Your task to perform on an android device: change notification settings in the gmail app Image 0: 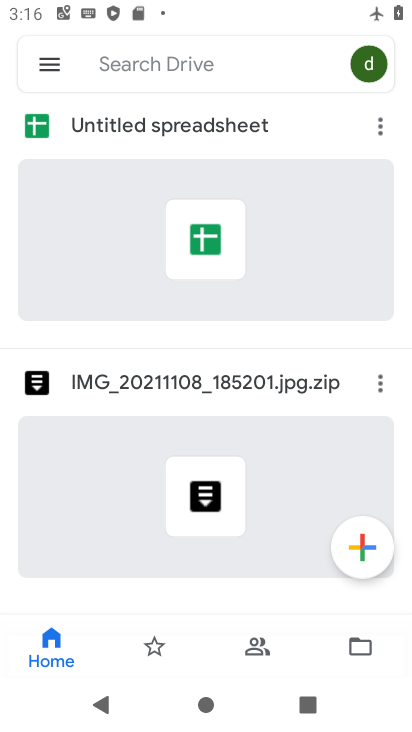
Step 0: press home button
Your task to perform on an android device: change notification settings in the gmail app Image 1: 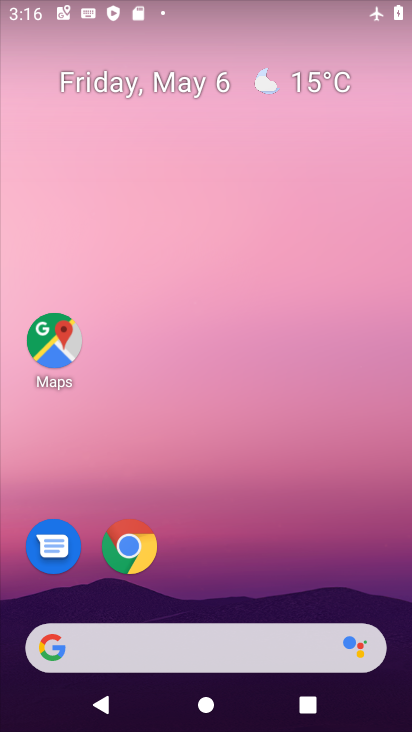
Step 1: drag from (354, 526) to (279, 70)
Your task to perform on an android device: change notification settings in the gmail app Image 2: 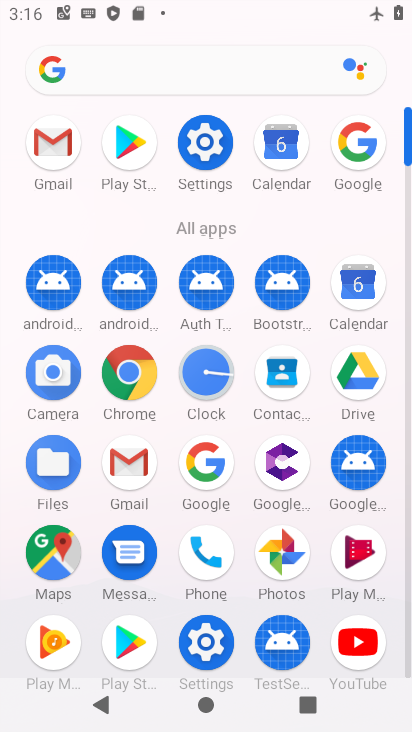
Step 2: click (53, 152)
Your task to perform on an android device: change notification settings in the gmail app Image 3: 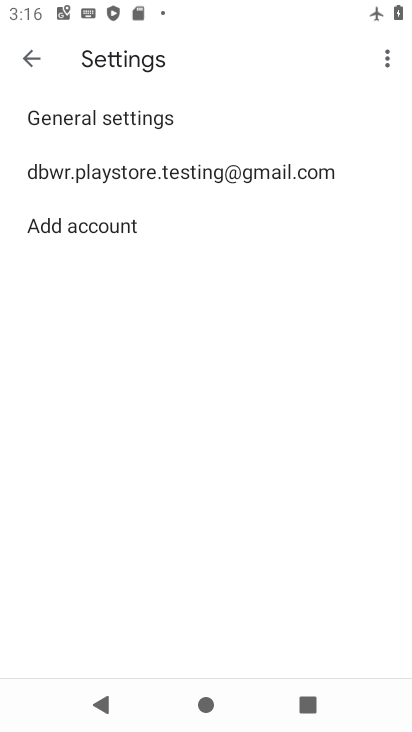
Step 3: click (70, 167)
Your task to perform on an android device: change notification settings in the gmail app Image 4: 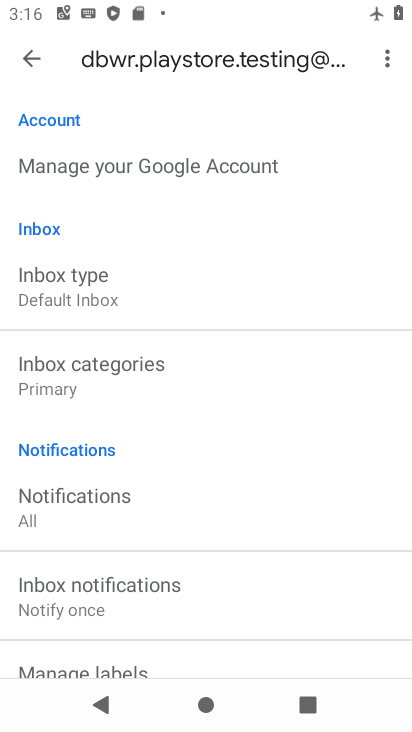
Step 4: drag from (170, 640) to (161, 362)
Your task to perform on an android device: change notification settings in the gmail app Image 5: 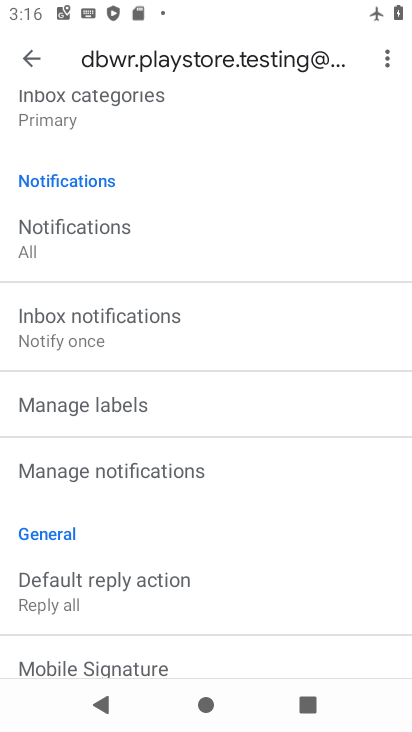
Step 5: click (185, 475)
Your task to perform on an android device: change notification settings in the gmail app Image 6: 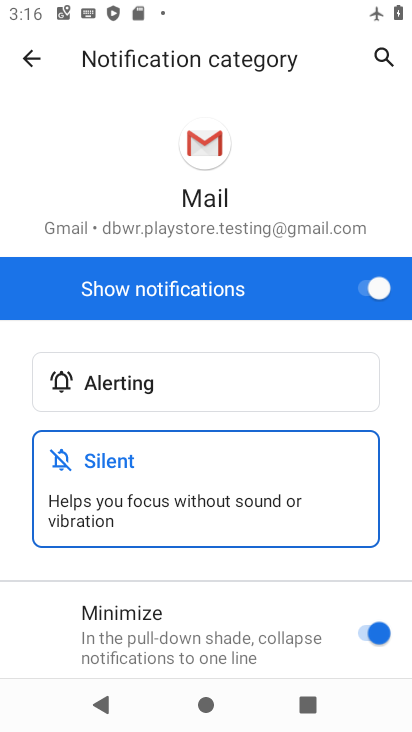
Step 6: drag from (236, 559) to (234, 347)
Your task to perform on an android device: change notification settings in the gmail app Image 7: 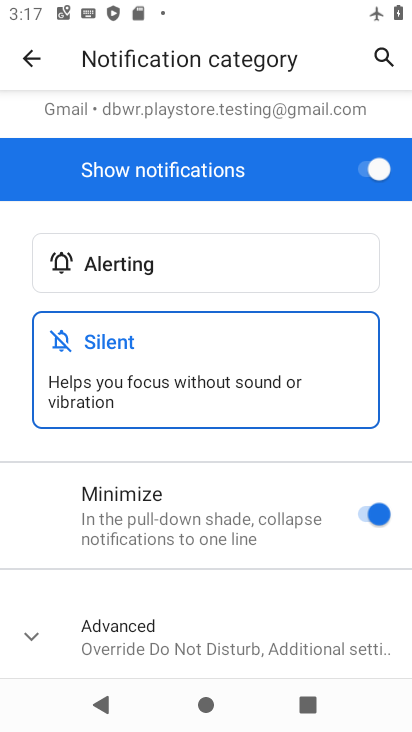
Step 7: click (250, 267)
Your task to perform on an android device: change notification settings in the gmail app Image 8: 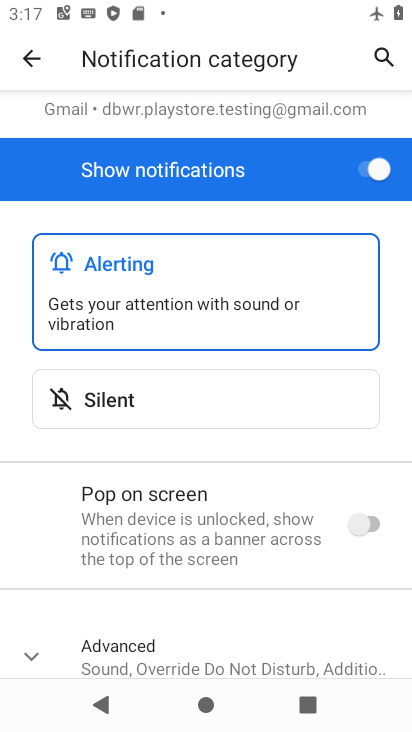
Step 8: click (352, 519)
Your task to perform on an android device: change notification settings in the gmail app Image 9: 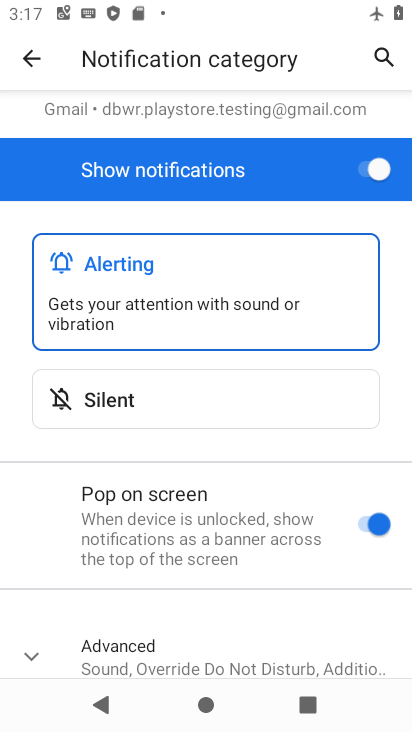
Step 9: task complete